Your task to perform on an android device: Show the shopping cart on newegg. Search for usb-c to usb-b on newegg, select the first entry, and add it to the cart. Image 0: 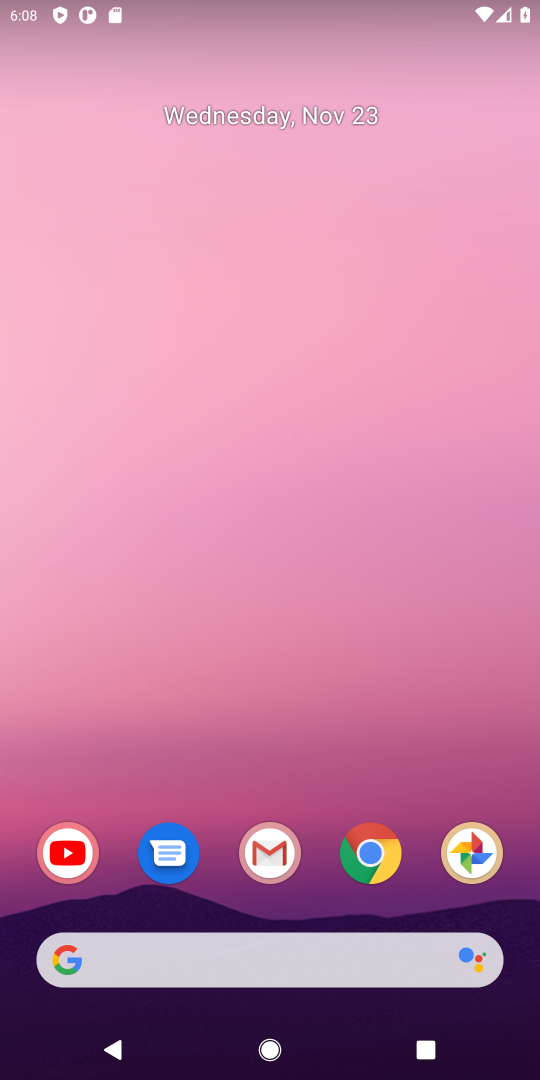
Step 0: click (370, 855)
Your task to perform on an android device: Show the shopping cart on newegg. Search for usb-c to usb-b on newegg, select the first entry, and add it to the cart. Image 1: 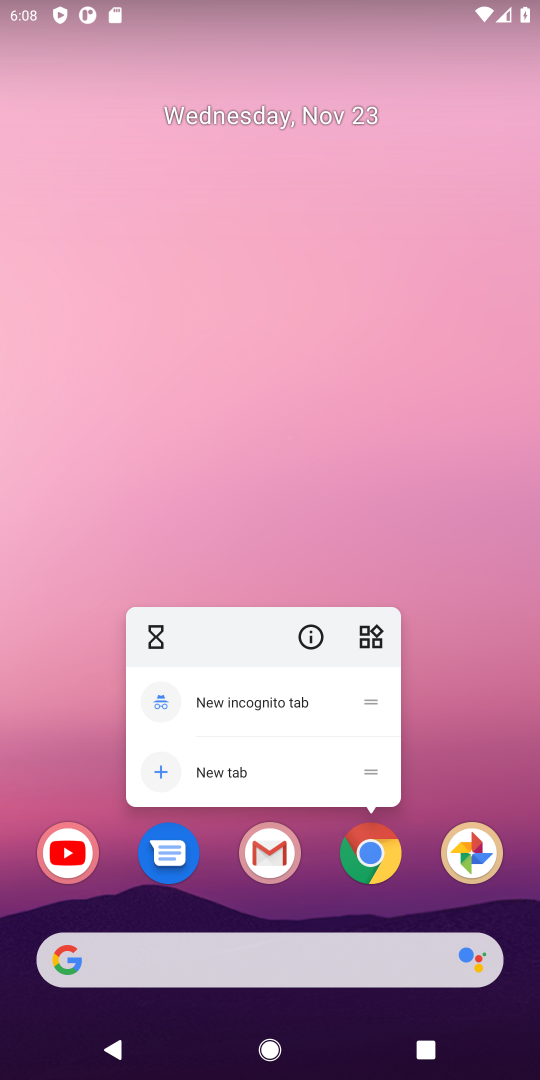
Step 1: click (370, 855)
Your task to perform on an android device: Show the shopping cart on newegg. Search for usb-c to usb-b on newegg, select the first entry, and add it to the cart. Image 2: 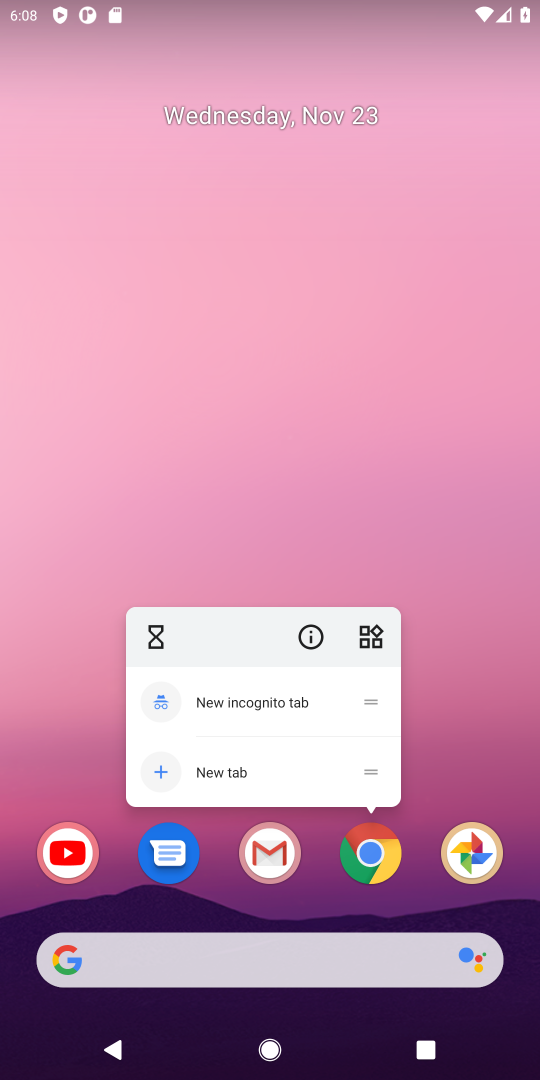
Step 2: click (370, 855)
Your task to perform on an android device: Show the shopping cart on newegg. Search for usb-c to usb-b on newegg, select the first entry, and add it to the cart. Image 3: 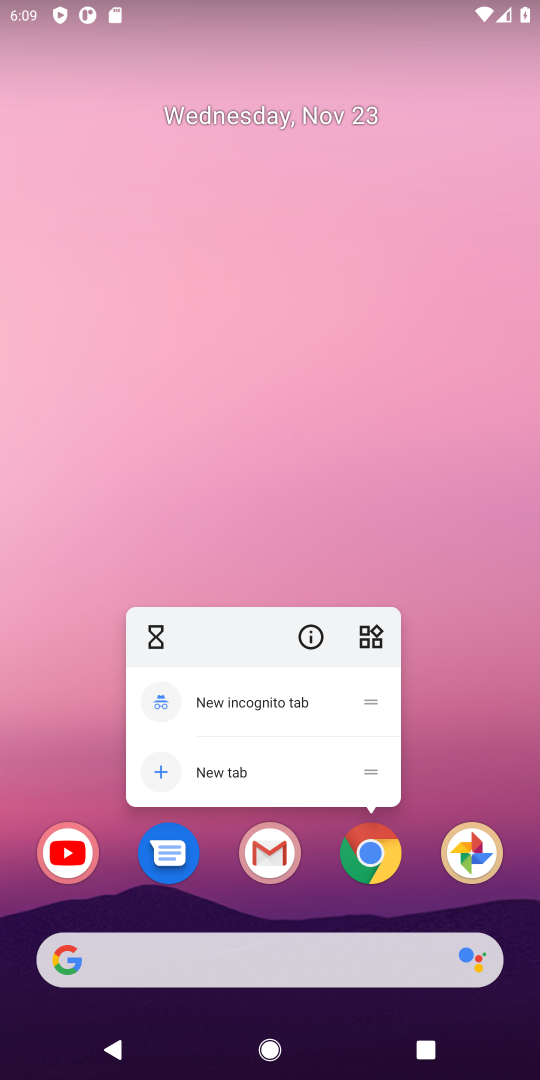
Step 3: click (377, 858)
Your task to perform on an android device: Show the shopping cart on newegg. Search for usb-c to usb-b on newegg, select the first entry, and add it to the cart. Image 4: 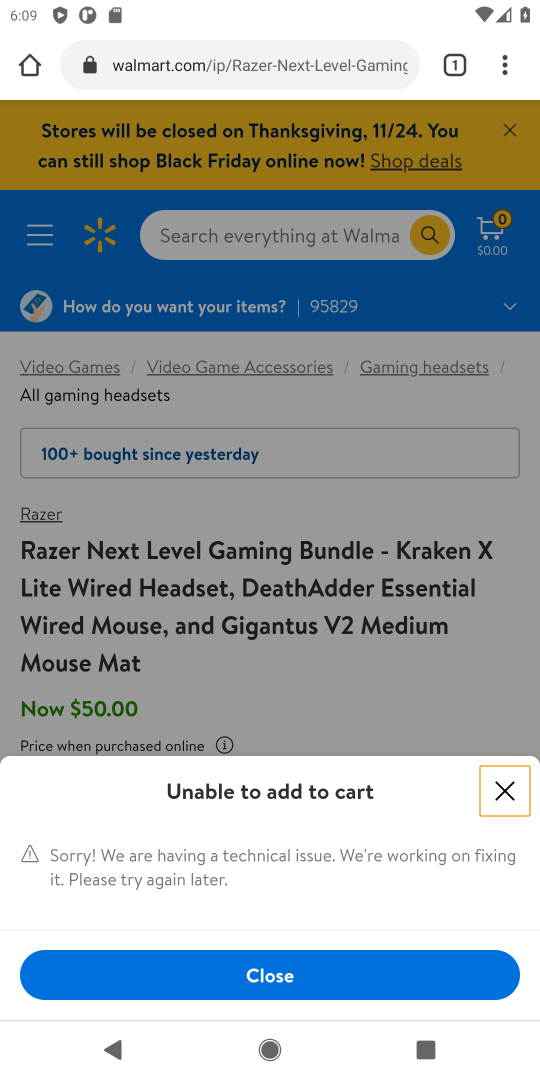
Step 4: click (200, 66)
Your task to perform on an android device: Show the shopping cart on newegg. Search for usb-c to usb-b on newegg, select the first entry, and add it to the cart. Image 5: 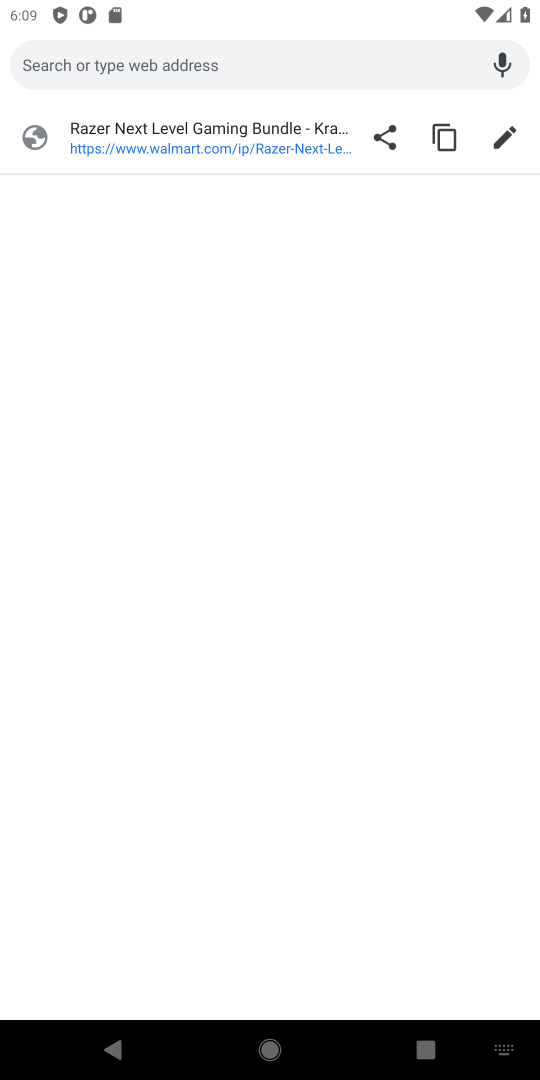
Step 5: click (130, 66)
Your task to perform on an android device: Show the shopping cart on newegg. Search for usb-c to usb-b on newegg, select the first entry, and add it to the cart. Image 6: 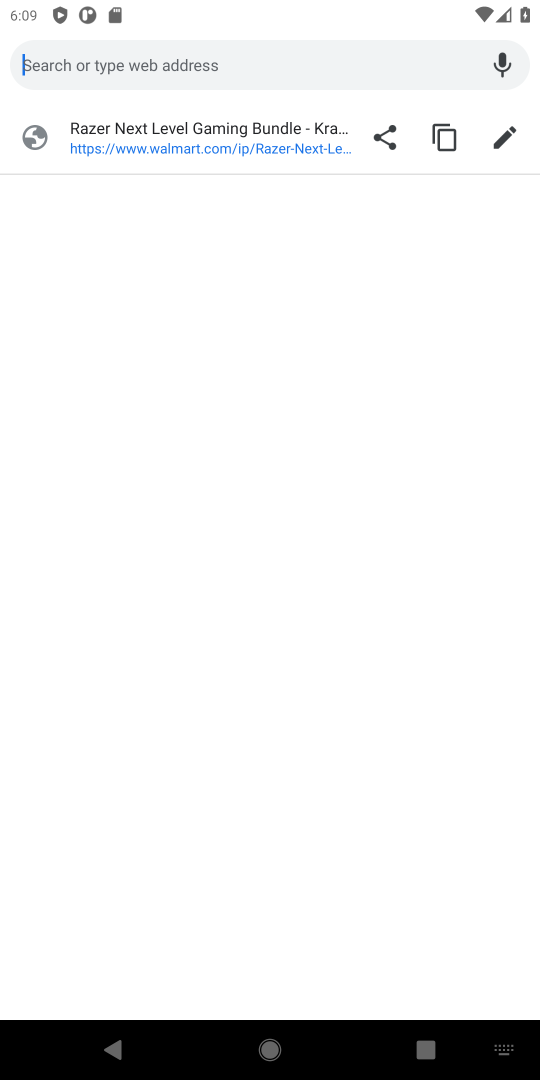
Step 6: type "newegg.com"
Your task to perform on an android device: Show the shopping cart on newegg. Search for usb-c to usb-b on newegg, select the first entry, and add it to the cart. Image 7: 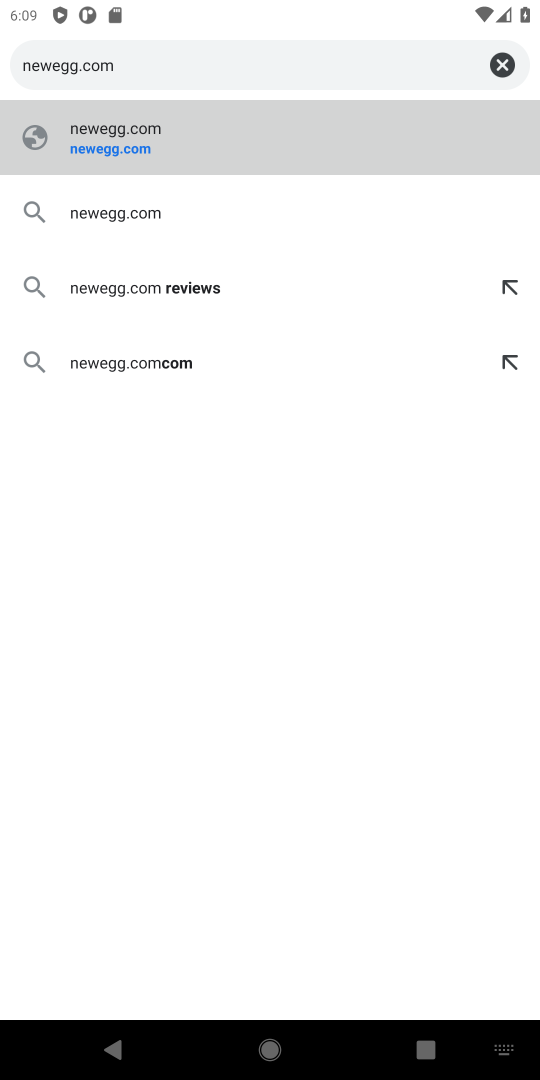
Step 7: click (92, 155)
Your task to perform on an android device: Show the shopping cart on newegg. Search for usb-c to usb-b on newegg, select the first entry, and add it to the cart. Image 8: 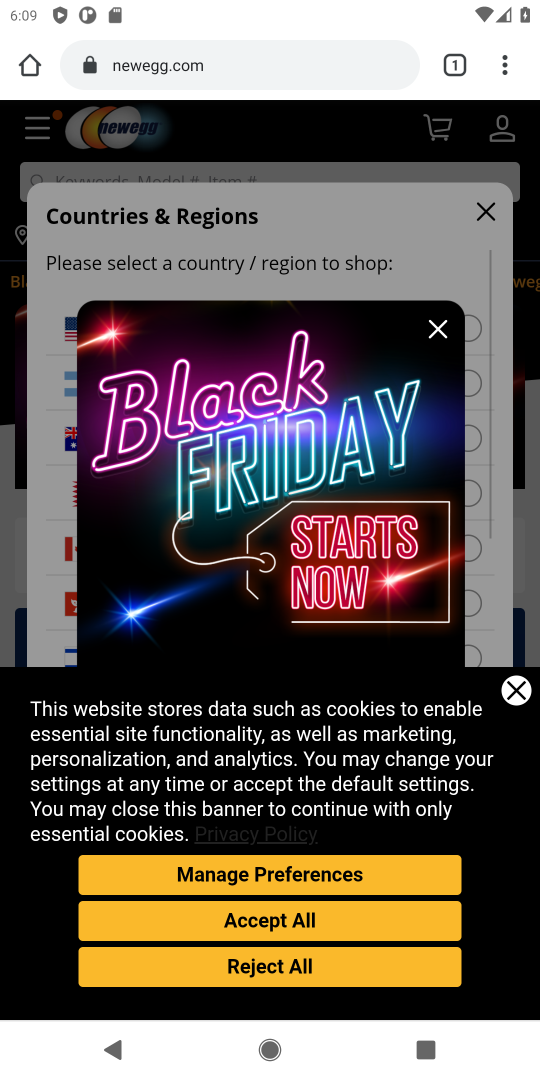
Step 8: click (518, 685)
Your task to perform on an android device: Show the shopping cart on newegg. Search for usb-c to usb-b on newegg, select the first entry, and add it to the cart. Image 9: 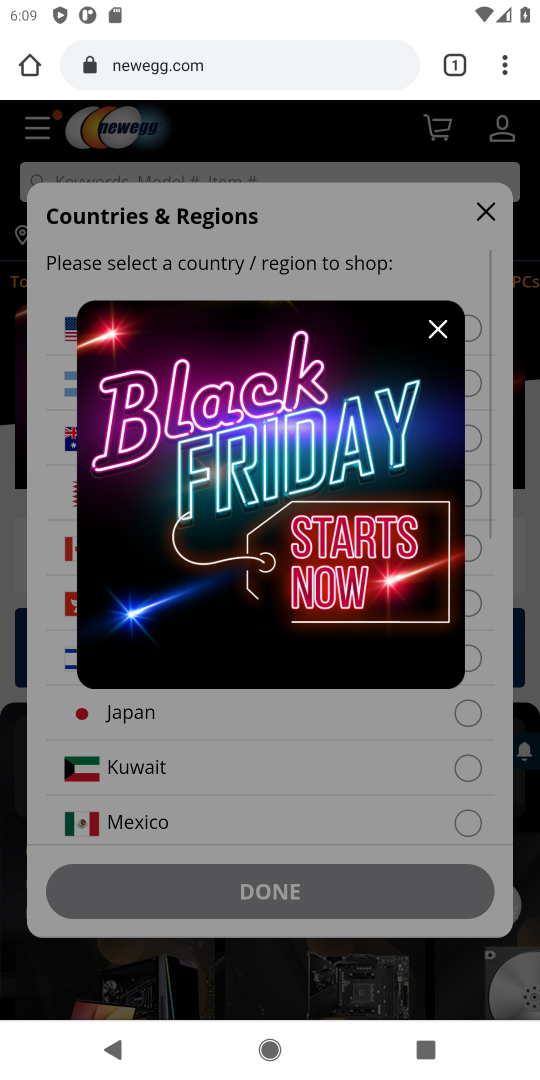
Step 9: click (439, 332)
Your task to perform on an android device: Show the shopping cart on newegg. Search for usb-c to usb-b on newegg, select the first entry, and add it to the cart. Image 10: 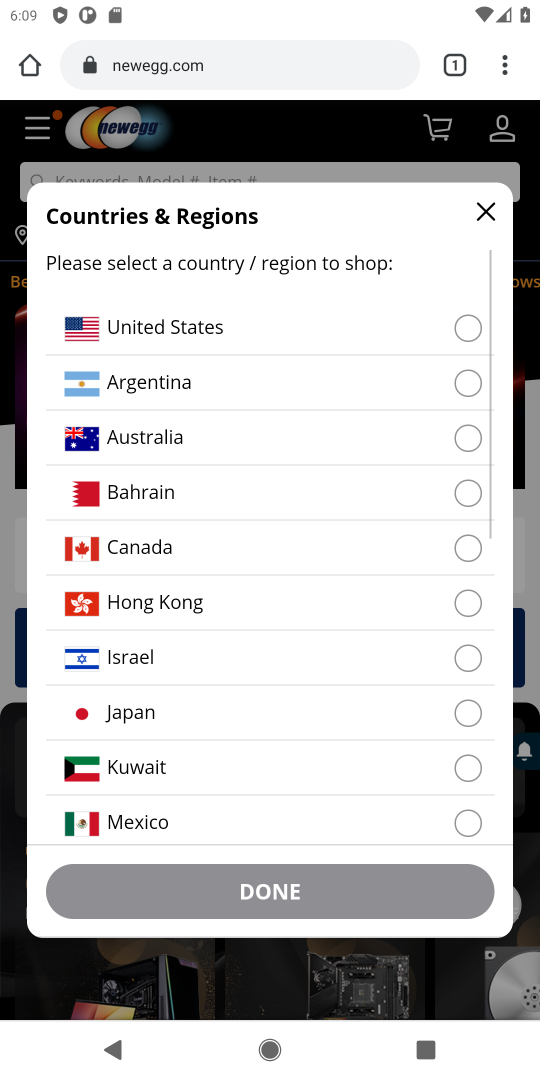
Step 10: click (160, 337)
Your task to perform on an android device: Show the shopping cart on newegg. Search for usb-c to usb-b on newegg, select the first entry, and add it to the cart. Image 11: 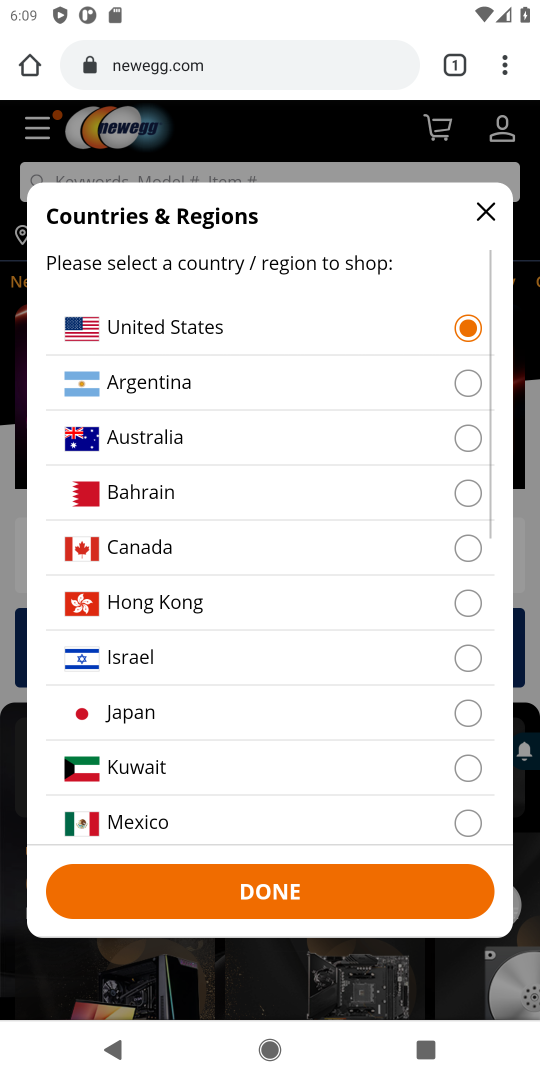
Step 11: click (250, 887)
Your task to perform on an android device: Show the shopping cart on newegg. Search for usb-c to usb-b on newegg, select the first entry, and add it to the cart. Image 12: 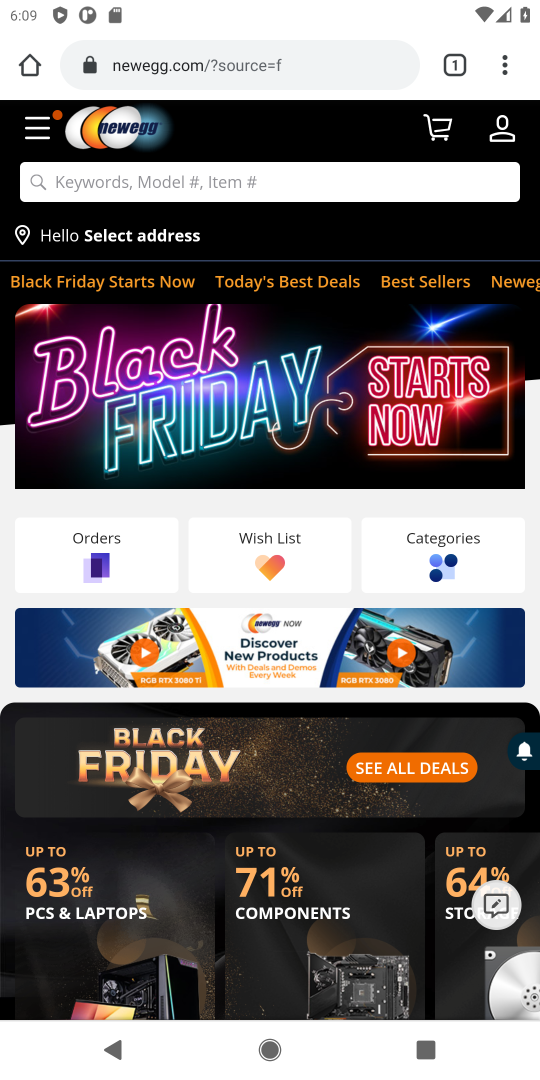
Step 12: click (439, 126)
Your task to perform on an android device: Show the shopping cart on newegg. Search for usb-c to usb-b on newegg, select the first entry, and add it to the cart. Image 13: 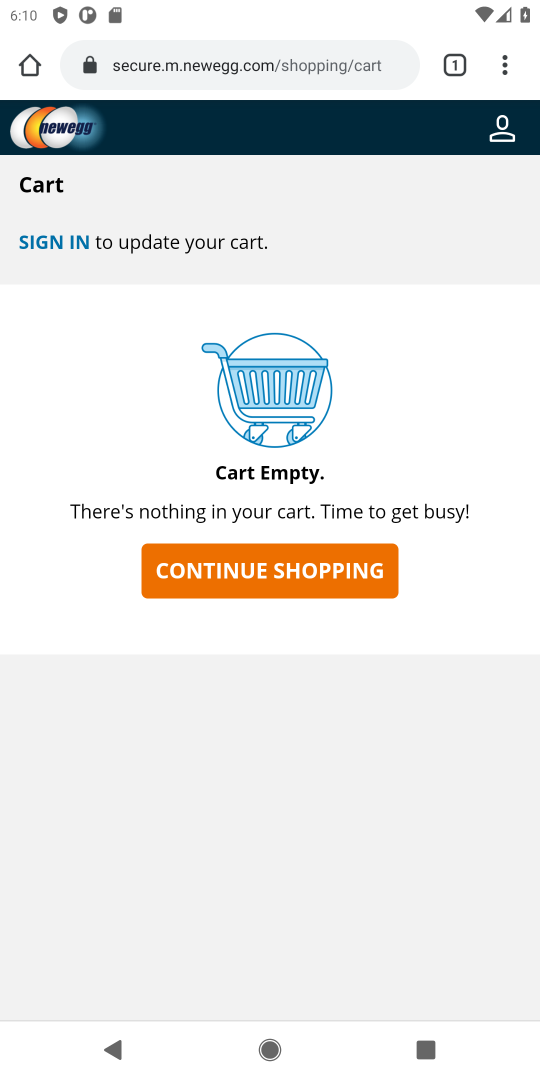
Step 13: click (438, 130)
Your task to perform on an android device: Show the shopping cart on newegg. Search for usb-c to usb-b on newegg, select the first entry, and add it to the cart. Image 14: 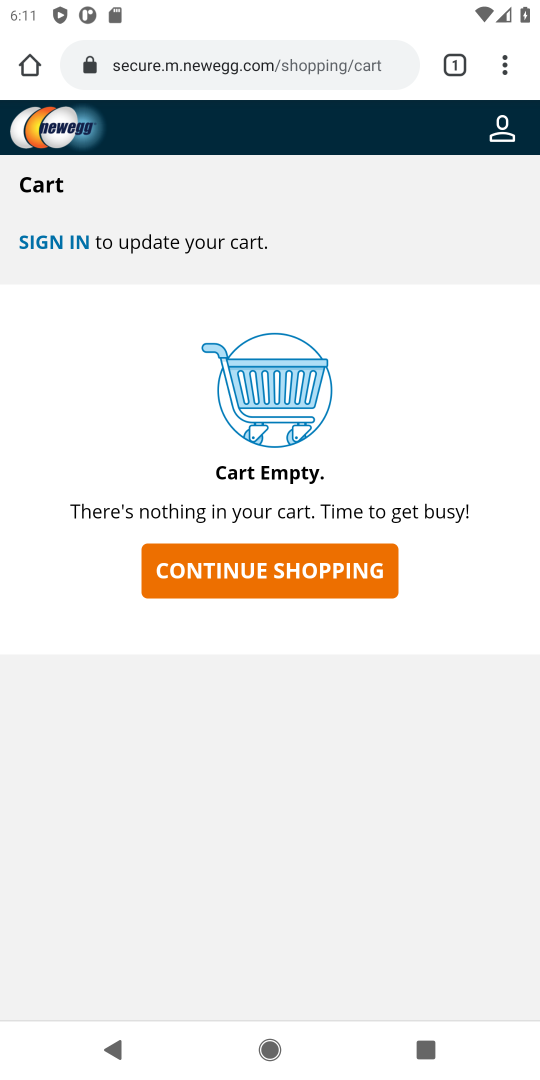
Step 14: click (252, 585)
Your task to perform on an android device: Show the shopping cart on newegg. Search for usb-c to usb-b on newegg, select the first entry, and add it to the cart. Image 15: 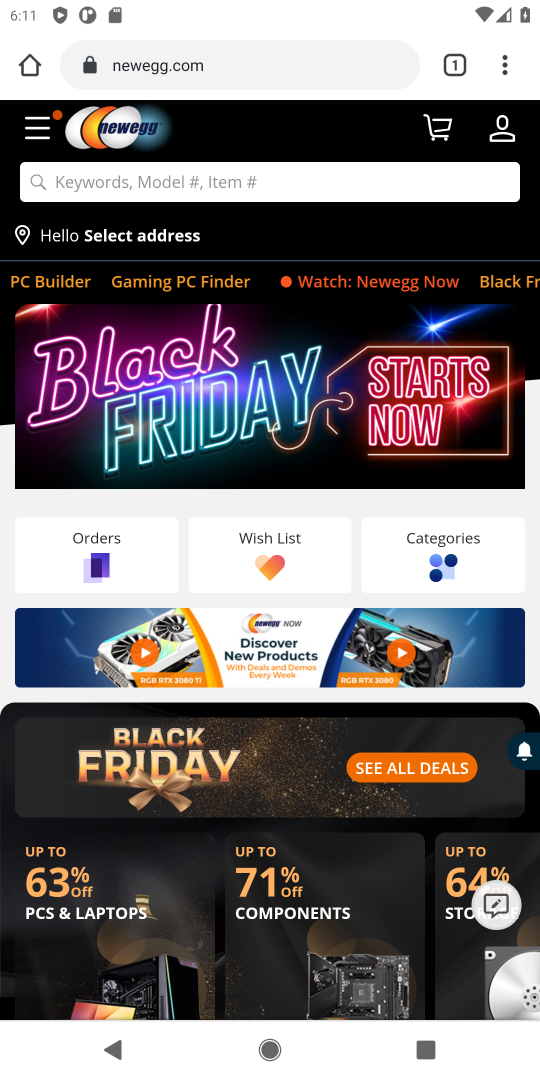
Step 15: click (140, 175)
Your task to perform on an android device: Show the shopping cart on newegg. Search for usb-c to usb-b on newegg, select the first entry, and add it to the cart. Image 16: 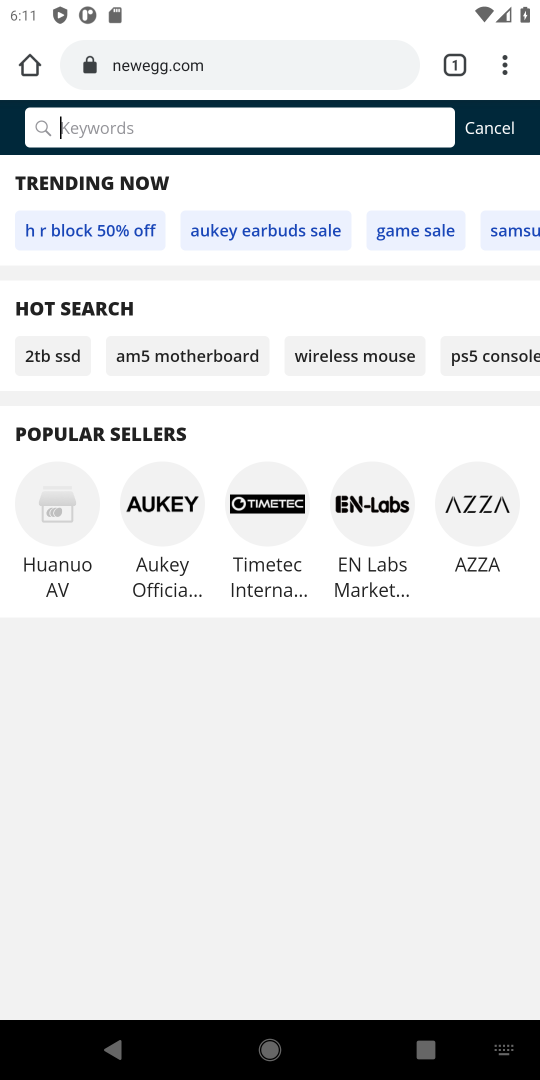
Step 16: type "usb-c to usb-b"
Your task to perform on an android device: Show the shopping cart on newegg. Search for usb-c to usb-b on newegg, select the first entry, and add it to the cart. Image 17: 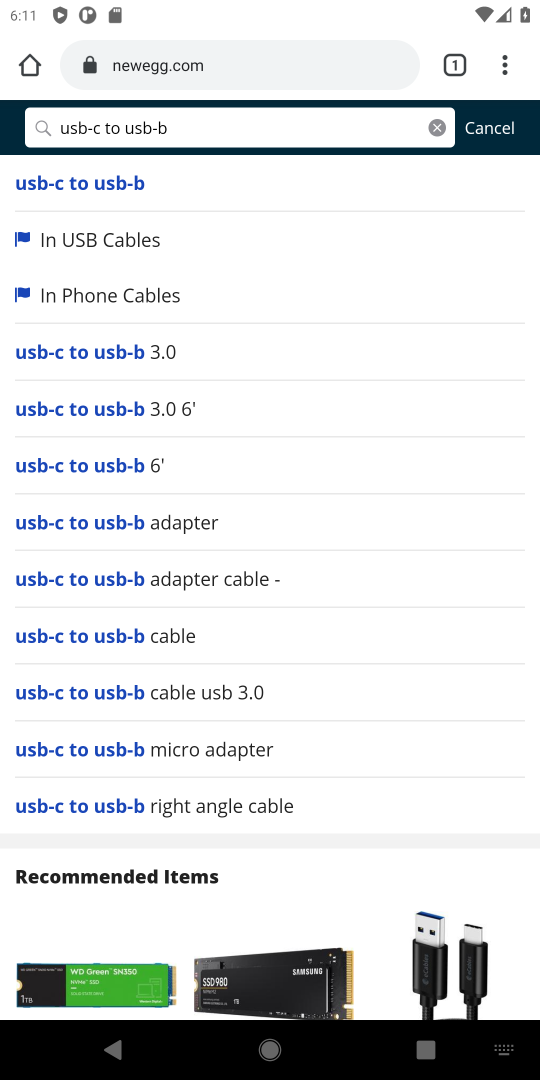
Step 17: click (32, 185)
Your task to perform on an android device: Show the shopping cart on newegg. Search for usb-c to usb-b on newegg, select the first entry, and add it to the cart. Image 18: 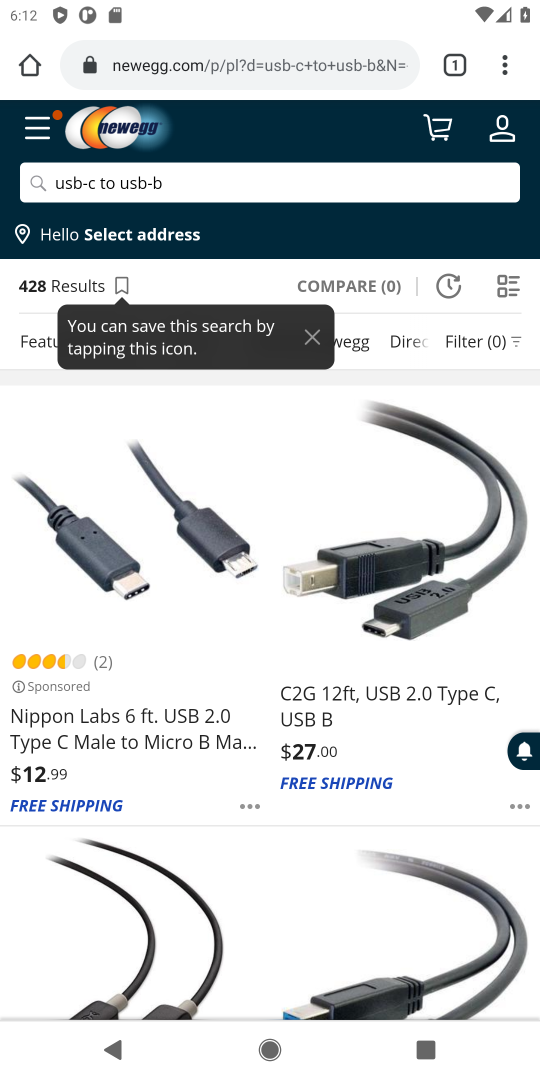
Step 18: click (115, 597)
Your task to perform on an android device: Show the shopping cart on newegg. Search for usb-c to usb-b on newegg, select the first entry, and add it to the cart. Image 19: 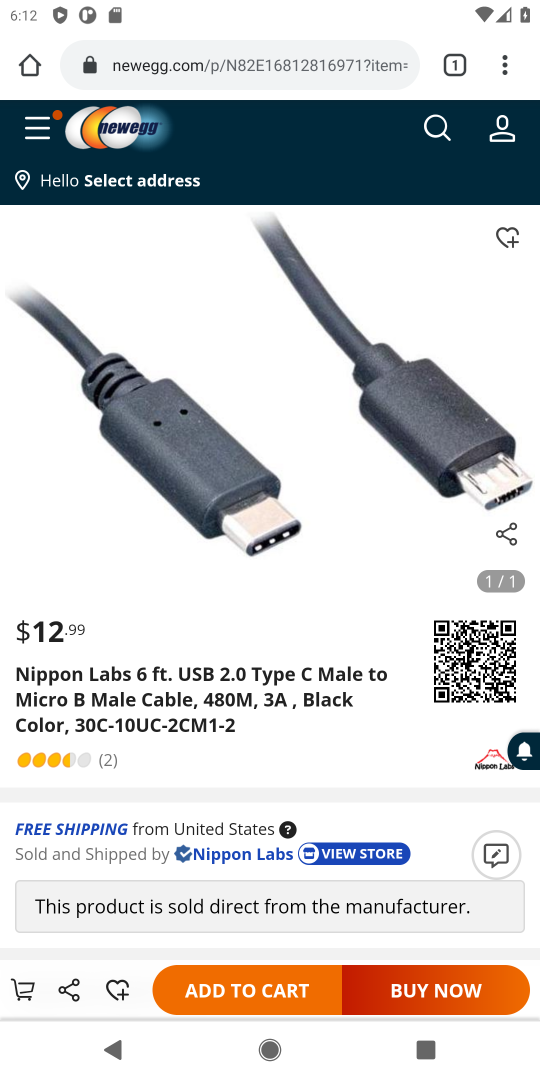
Step 19: click (244, 993)
Your task to perform on an android device: Show the shopping cart on newegg. Search for usb-c to usb-b on newegg, select the first entry, and add it to the cart. Image 20: 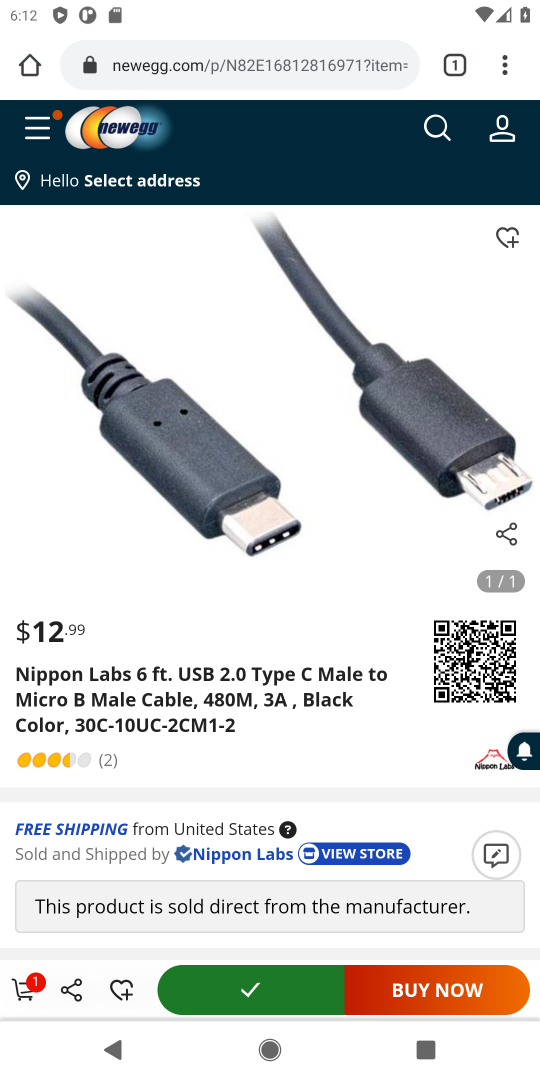
Step 20: task complete